Your task to perform on an android device: empty trash in google photos Image 0: 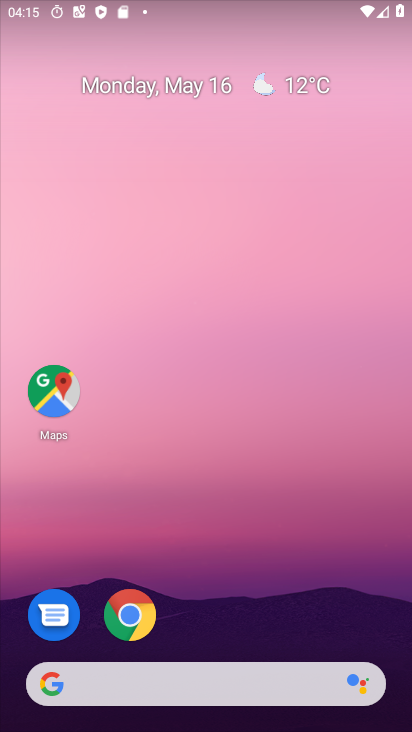
Step 0: drag from (250, 488) to (176, 145)
Your task to perform on an android device: empty trash in google photos Image 1: 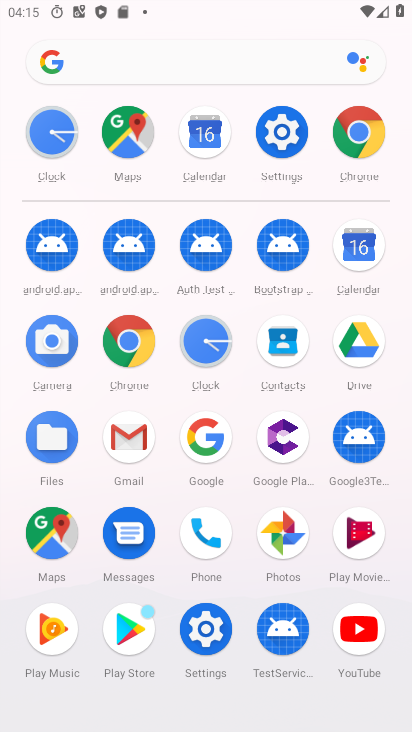
Step 1: click (273, 518)
Your task to perform on an android device: empty trash in google photos Image 2: 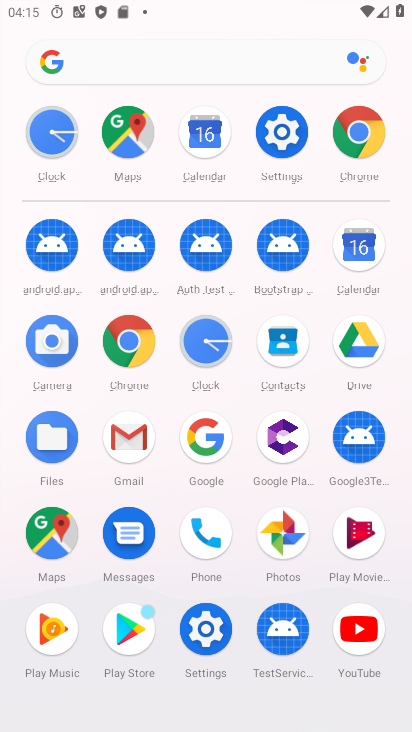
Step 2: click (270, 521)
Your task to perform on an android device: empty trash in google photos Image 3: 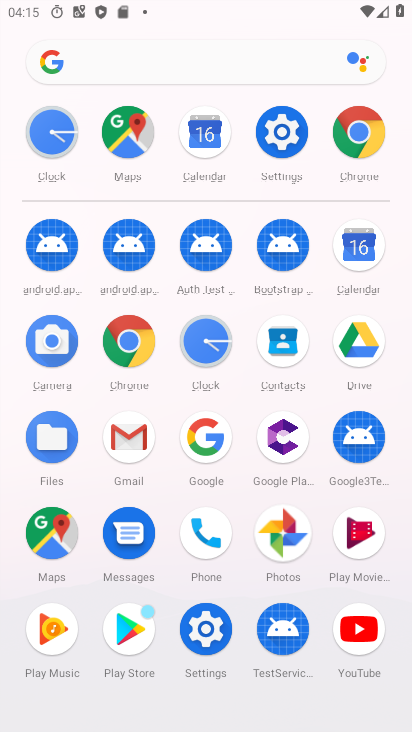
Step 3: click (270, 521)
Your task to perform on an android device: empty trash in google photos Image 4: 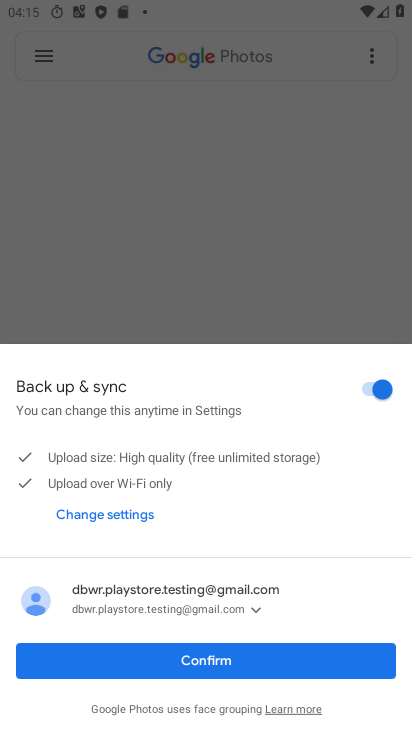
Step 4: click (216, 665)
Your task to perform on an android device: empty trash in google photos Image 5: 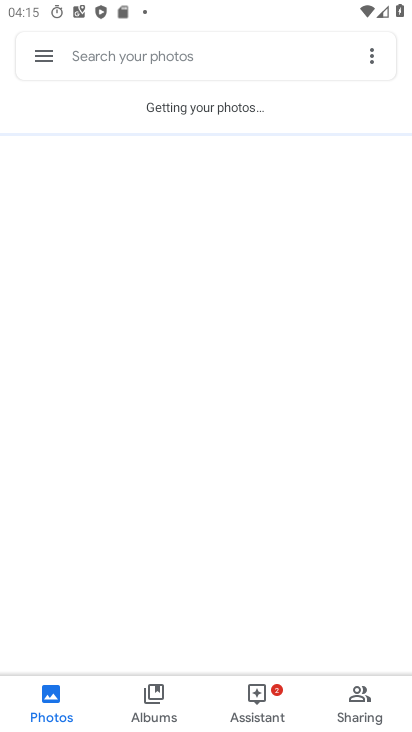
Step 5: press back button
Your task to perform on an android device: empty trash in google photos Image 6: 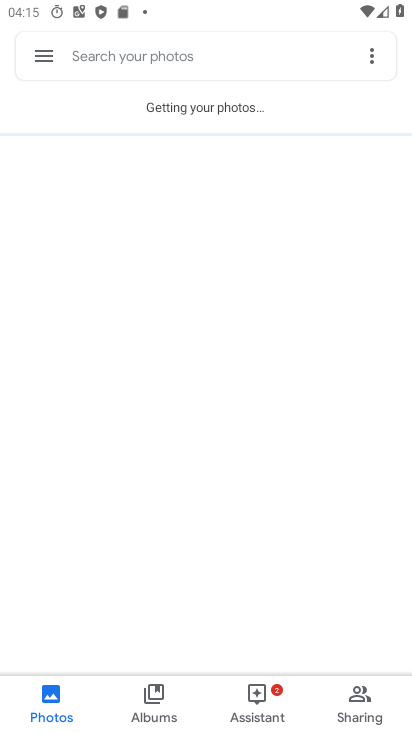
Step 6: press back button
Your task to perform on an android device: empty trash in google photos Image 7: 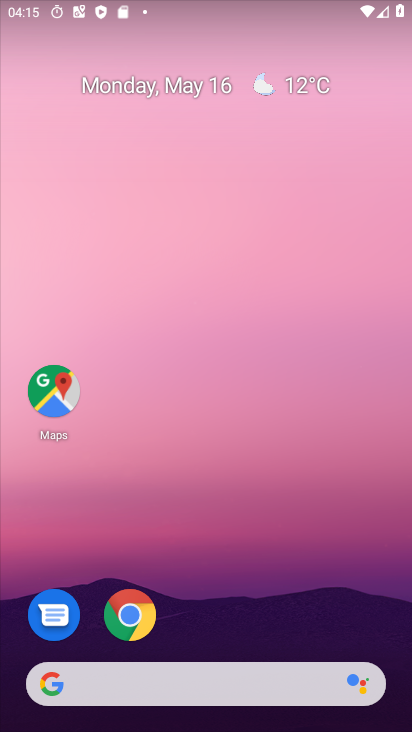
Step 7: press home button
Your task to perform on an android device: empty trash in google photos Image 8: 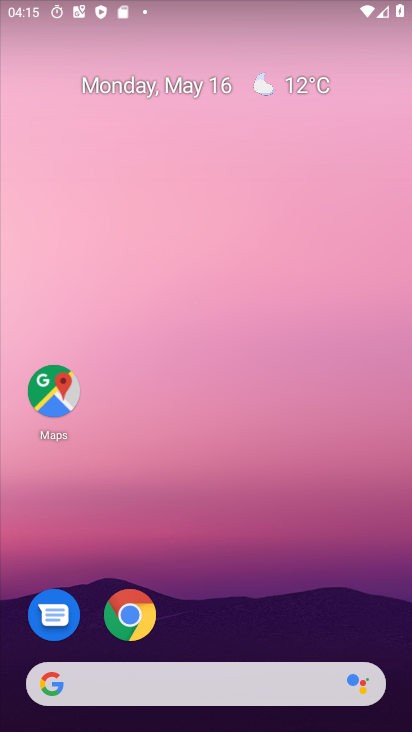
Step 8: press home button
Your task to perform on an android device: empty trash in google photos Image 9: 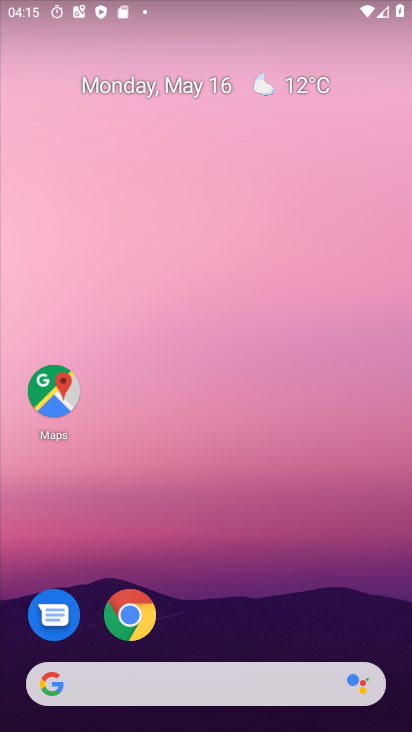
Step 9: drag from (296, 627) to (133, 61)
Your task to perform on an android device: empty trash in google photos Image 10: 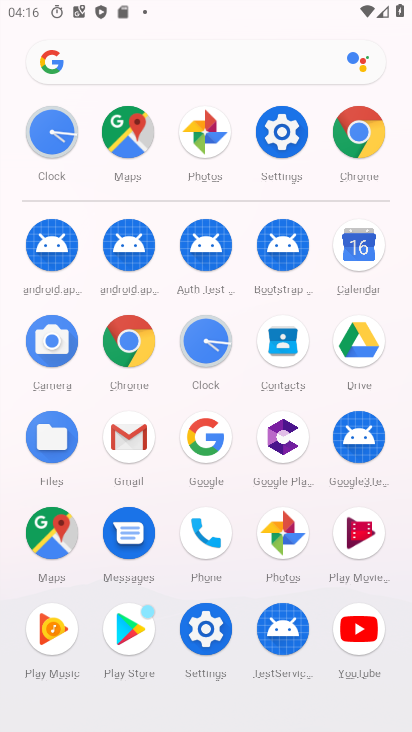
Step 10: click (286, 526)
Your task to perform on an android device: empty trash in google photos Image 11: 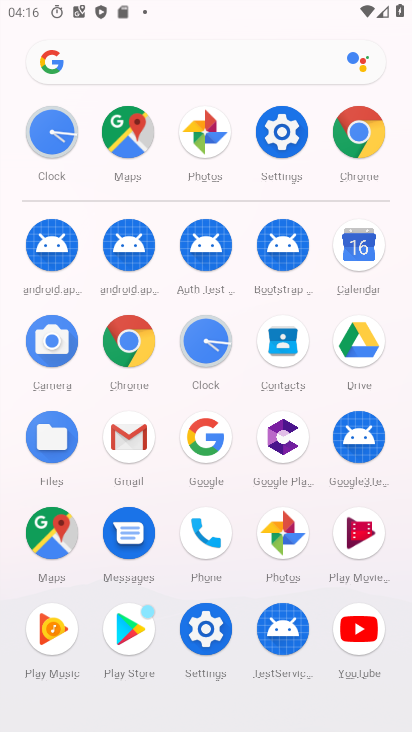
Step 11: click (286, 521)
Your task to perform on an android device: empty trash in google photos Image 12: 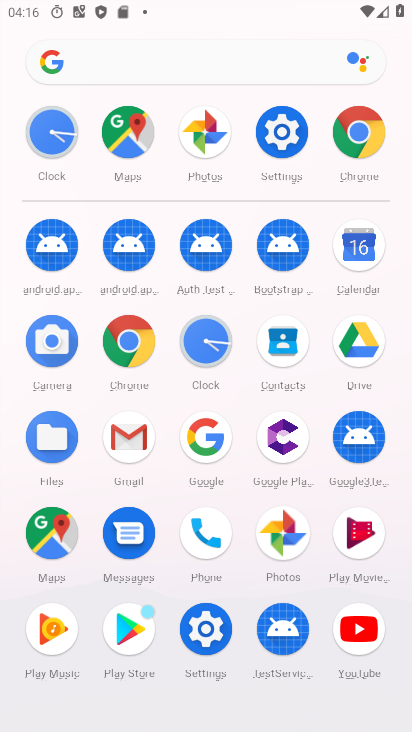
Step 12: click (286, 519)
Your task to perform on an android device: empty trash in google photos Image 13: 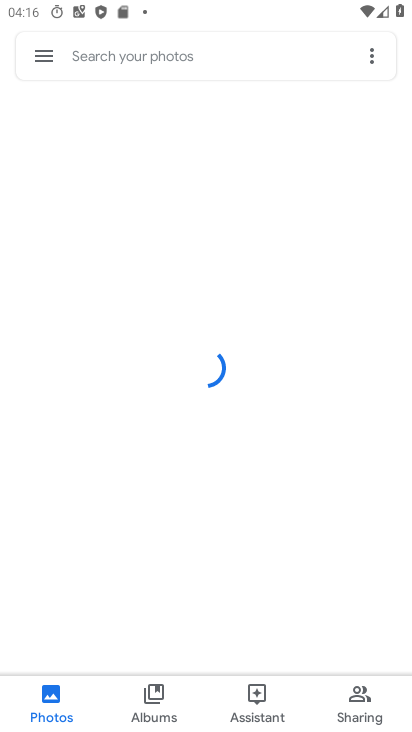
Step 13: click (282, 527)
Your task to perform on an android device: empty trash in google photos Image 14: 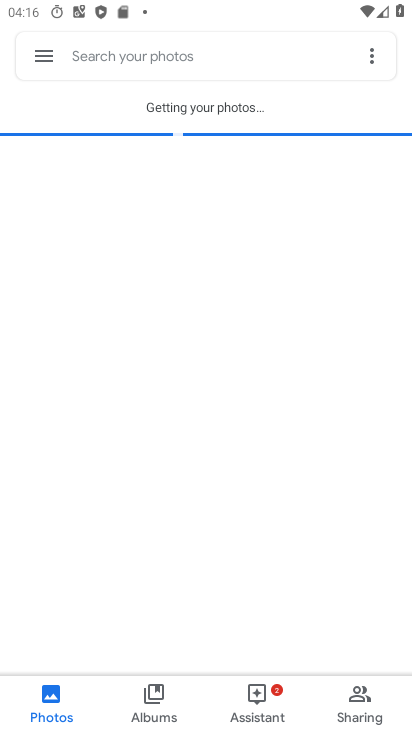
Step 14: click (266, 692)
Your task to perform on an android device: empty trash in google photos Image 15: 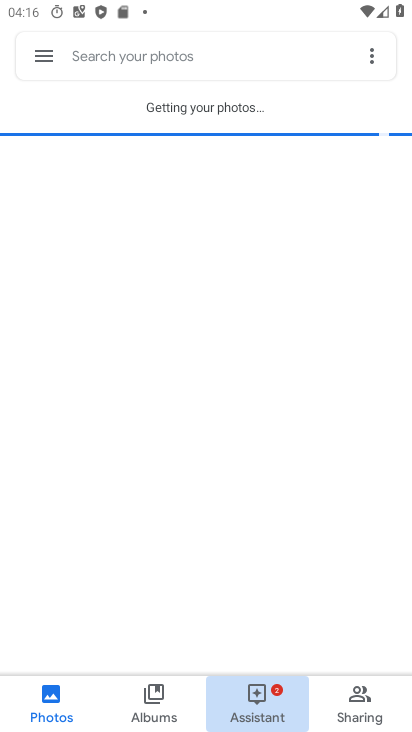
Step 15: click (266, 694)
Your task to perform on an android device: empty trash in google photos Image 16: 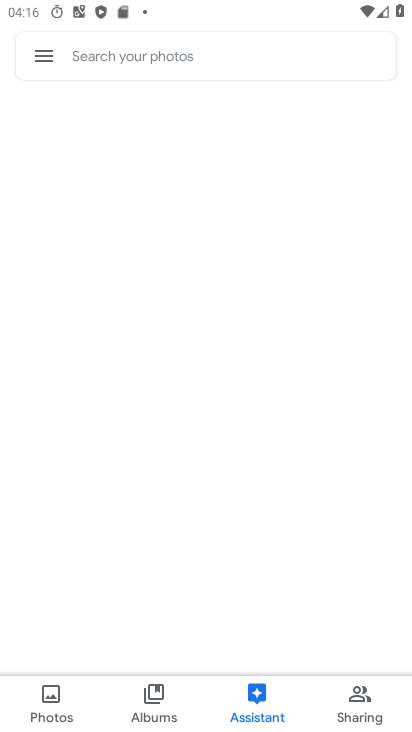
Step 16: click (266, 694)
Your task to perform on an android device: empty trash in google photos Image 17: 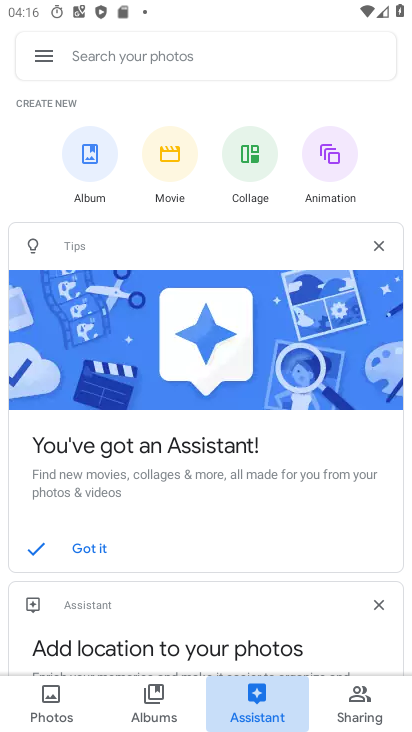
Step 17: click (266, 694)
Your task to perform on an android device: empty trash in google photos Image 18: 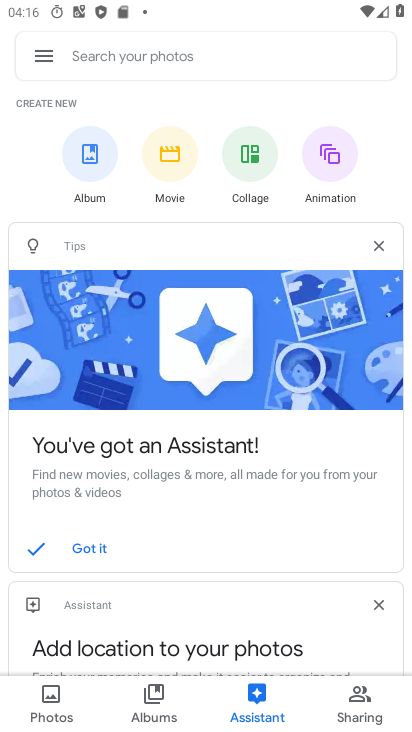
Step 18: click (266, 696)
Your task to perform on an android device: empty trash in google photos Image 19: 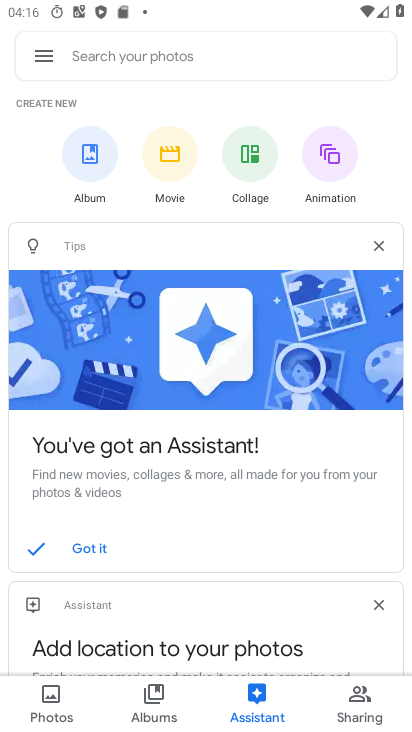
Step 19: click (46, 56)
Your task to perform on an android device: empty trash in google photos Image 20: 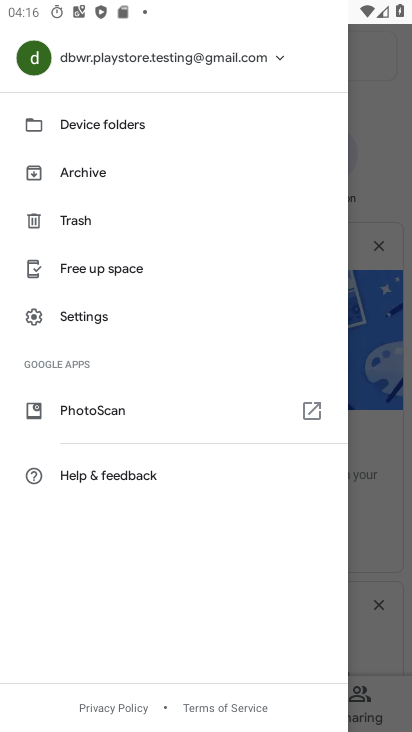
Step 20: click (74, 217)
Your task to perform on an android device: empty trash in google photos Image 21: 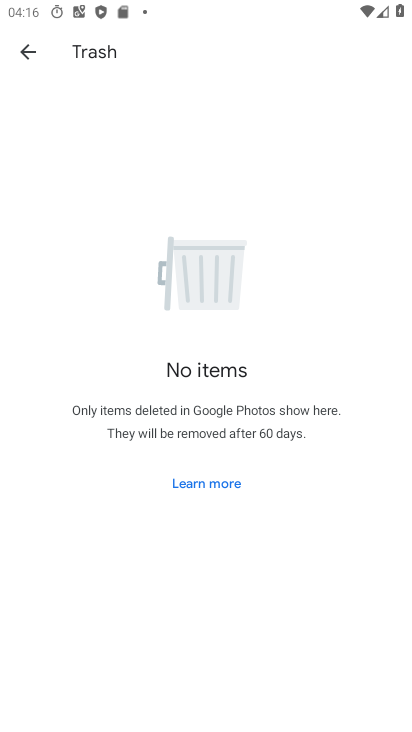
Step 21: task complete